Your task to perform on an android device: snooze an email in the gmail app Image 0: 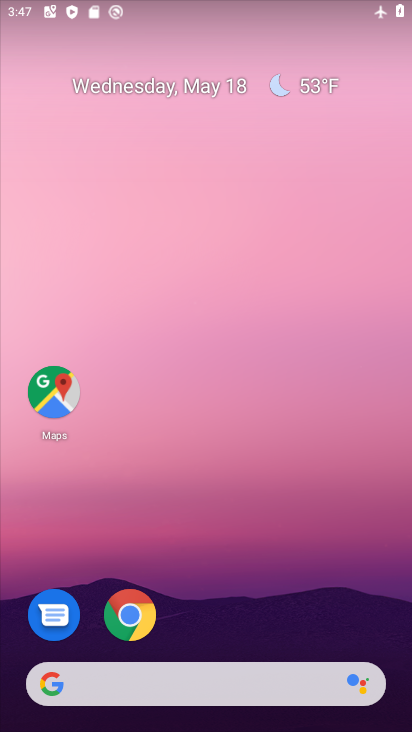
Step 0: drag from (255, 374) to (276, 105)
Your task to perform on an android device: snooze an email in the gmail app Image 1: 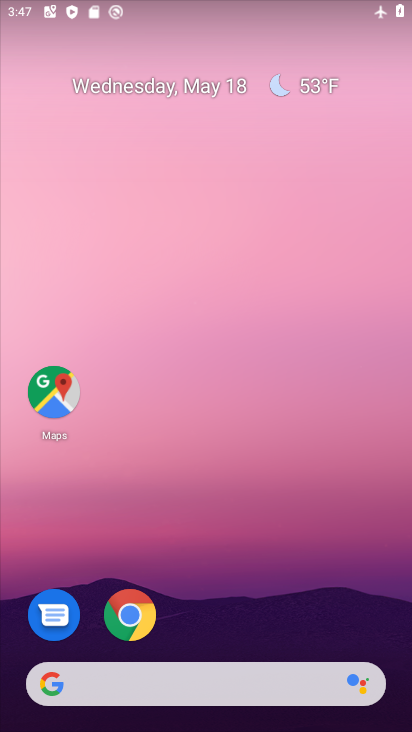
Step 1: drag from (287, 527) to (342, 73)
Your task to perform on an android device: snooze an email in the gmail app Image 2: 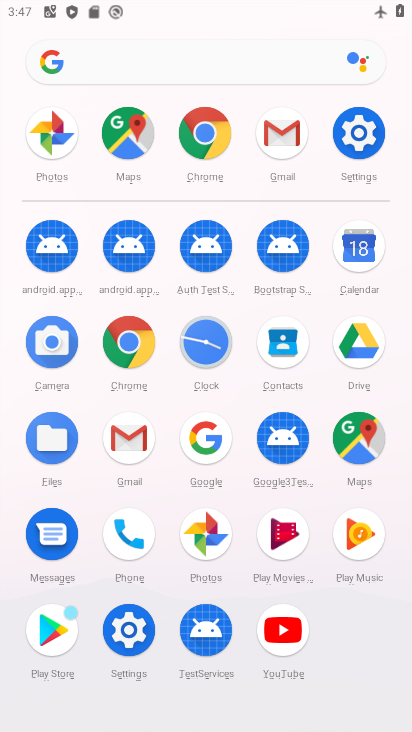
Step 2: click (140, 440)
Your task to perform on an android device: snooze an email in the gmail app Image 3: 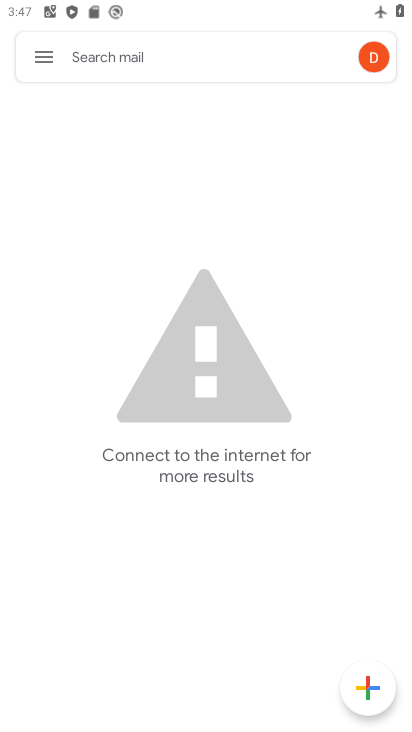
Step 3: click (49, 57)
Your task to perform on an android device: snooze an email in the gmail app Image 4: 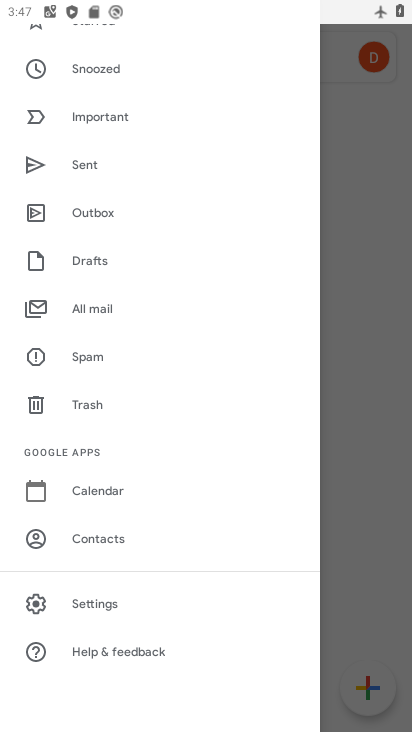
Step 4: click (109, 295)
Your task to perform on an android device: snooze an email in the gmail app Image 5: 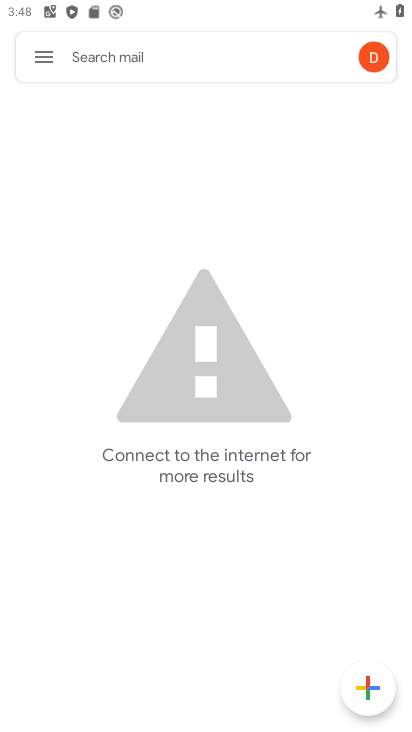
Step 5: task complete